Your task to perform on an android device: Open Youtube and go to the subscriptions tab Image 0: 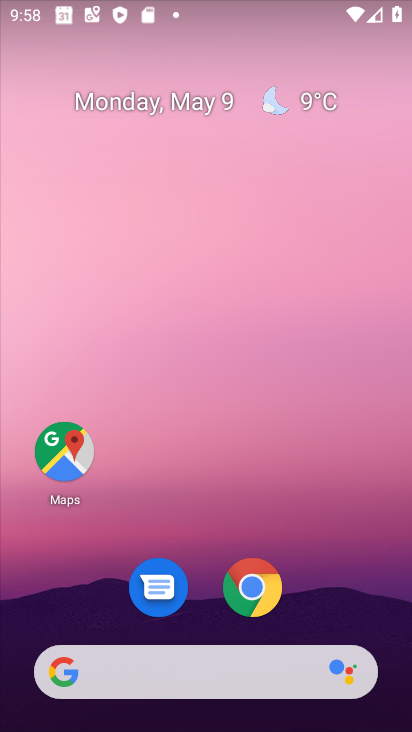
Step 0: drag from (357, 586) to (337, 59)
Your task to perform on an android device: Open Youtube and go to the subscriptions tab Image 1: 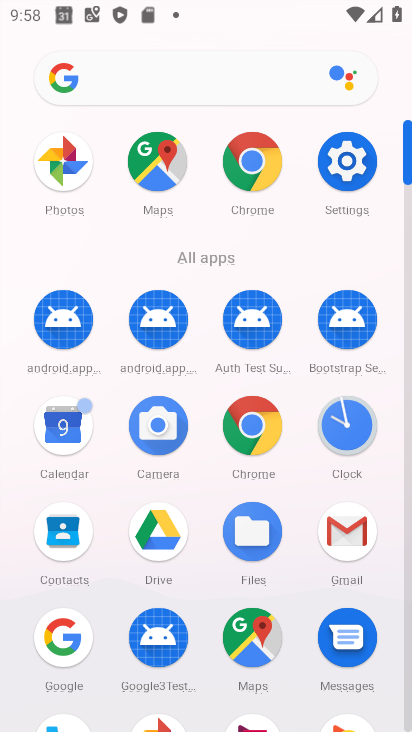
Step 1: drag from (390, 466) to (387, 53)
Your task to perform on an android device: Open Youtube and go to the subscriptions tab Image 2: 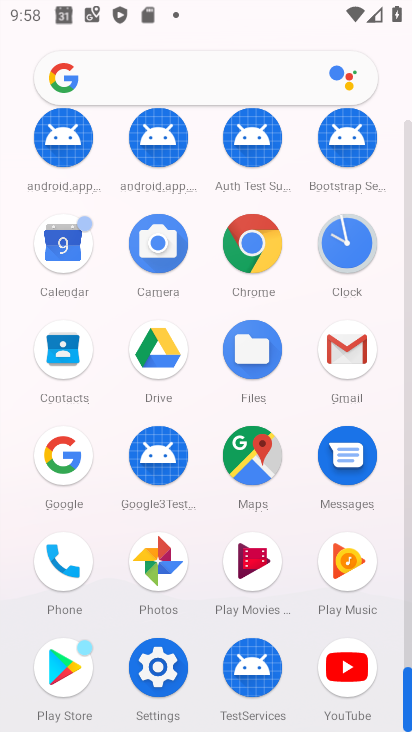
Step 2: click (351, 651)
Your task to perform on an android device: Open Youtube and go to the subscriptions tab Image 3: 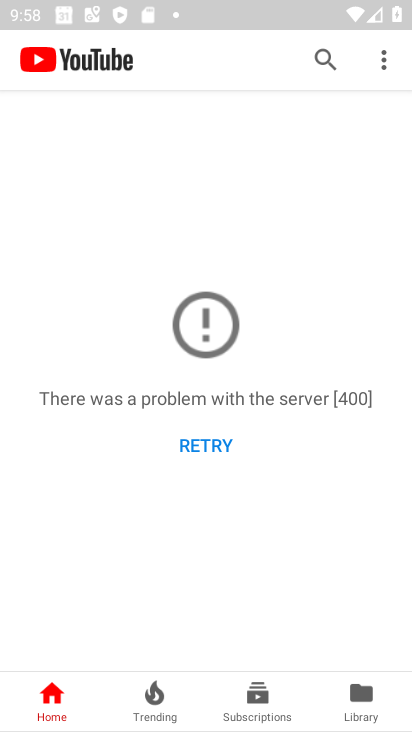
Step 3: click (245, 697)
Your task to perform on an android device: Open Youtube and go to the subscriptions tab Image 4: 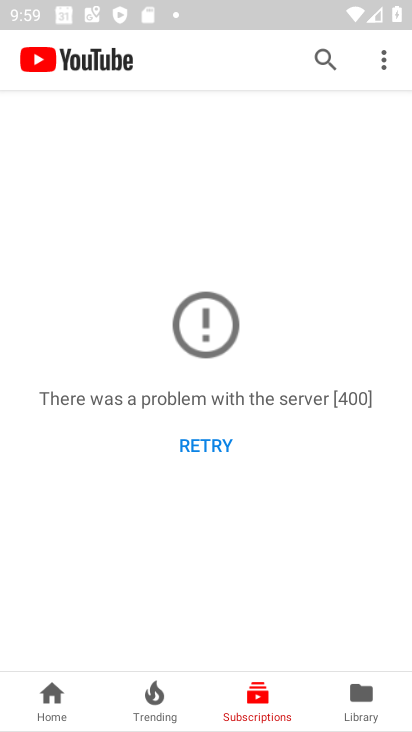
Step 4: task complete